Your task to perform on an android device: Clear all items from cart on ebay.com. Search for "macbook air" on ebay.com, select the first entry, add it to the cart, then select checkout. Image 0: 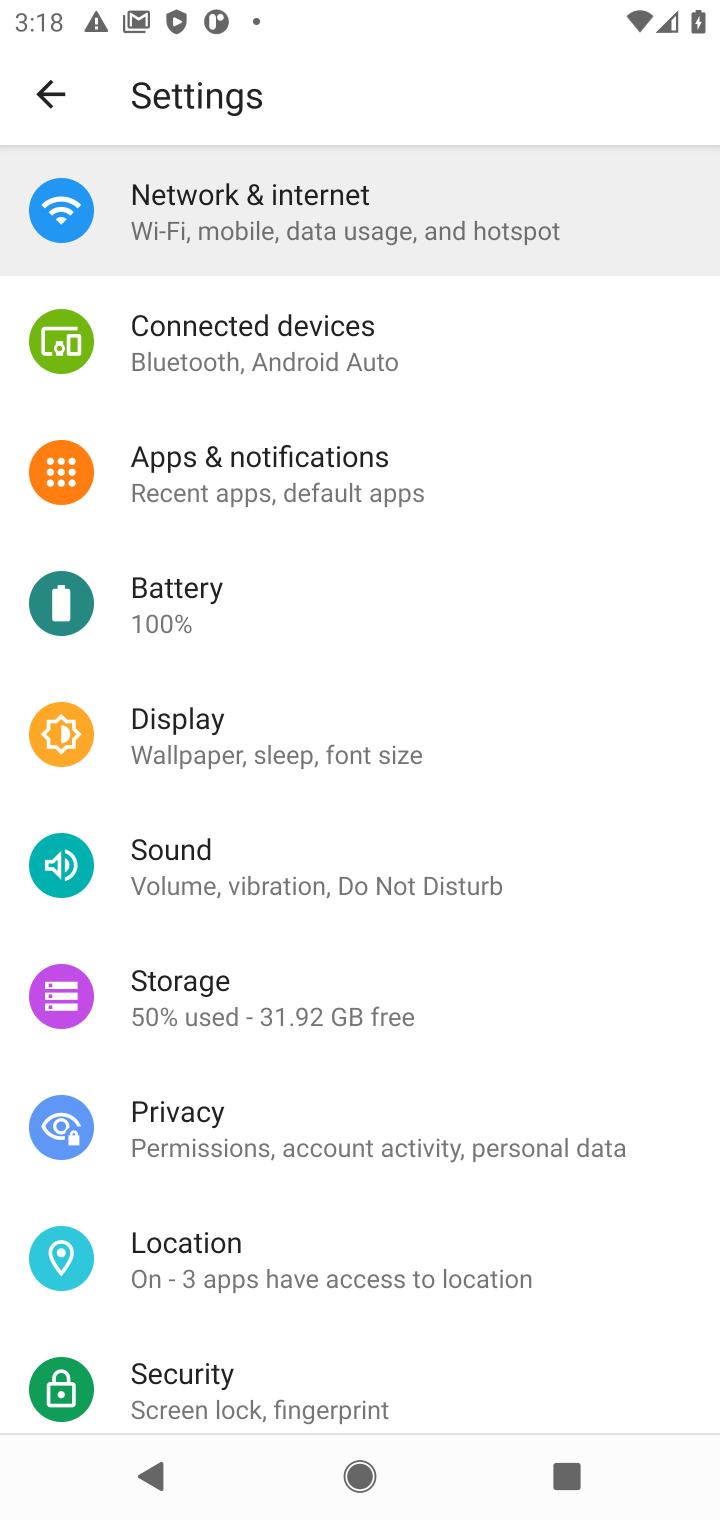
Step 0: press home button
Your task to perform on an android device: Clear all items from cart on ebay.com. Search for "macbook air" on ebay.com, select the first entry, add it to the cart, then select checkout. Image 1: 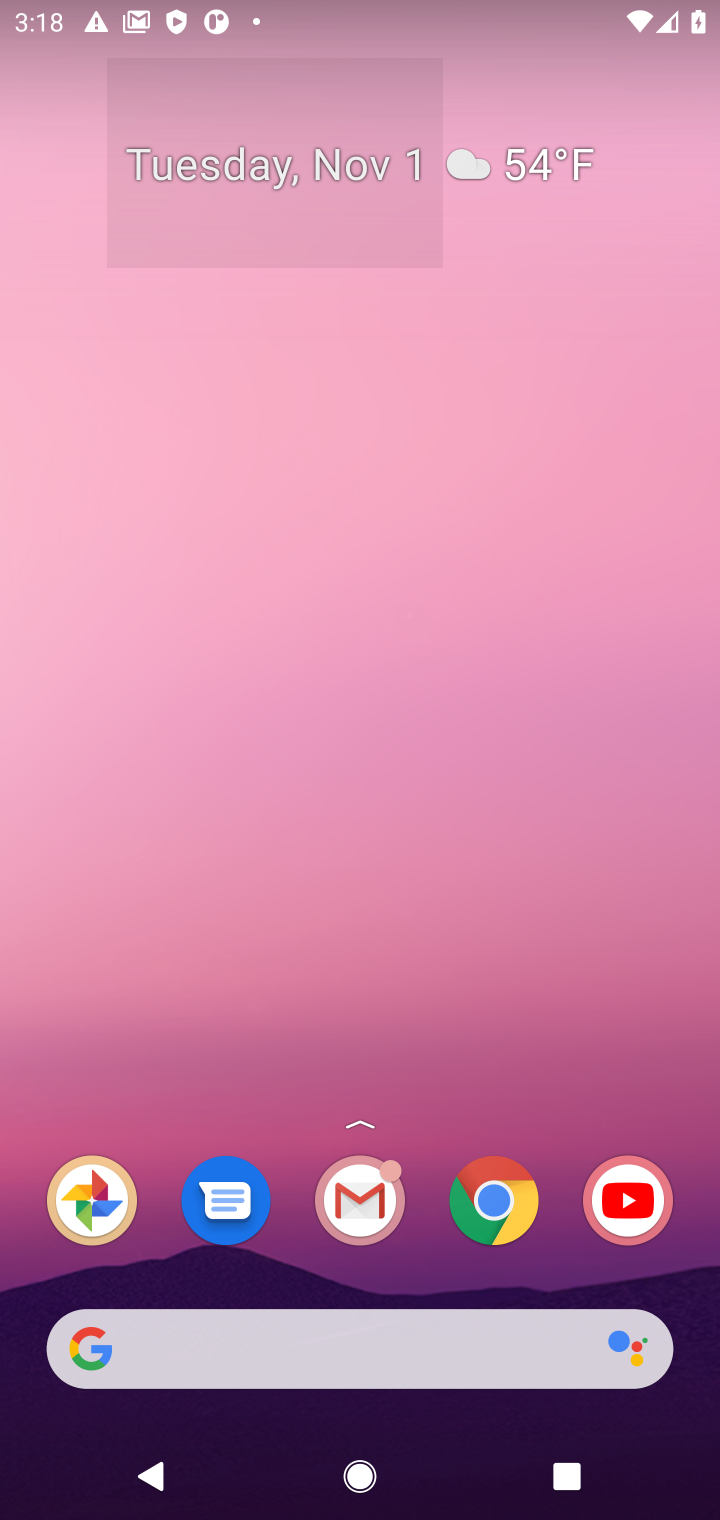
Step 1: click (88, 1359)
Your task to perform on an android device: Clear all items from cart on ebay.com. Search for "macbook air" on ebay.com, select the first entry, add it to the cart, then select checkout. Image 2: 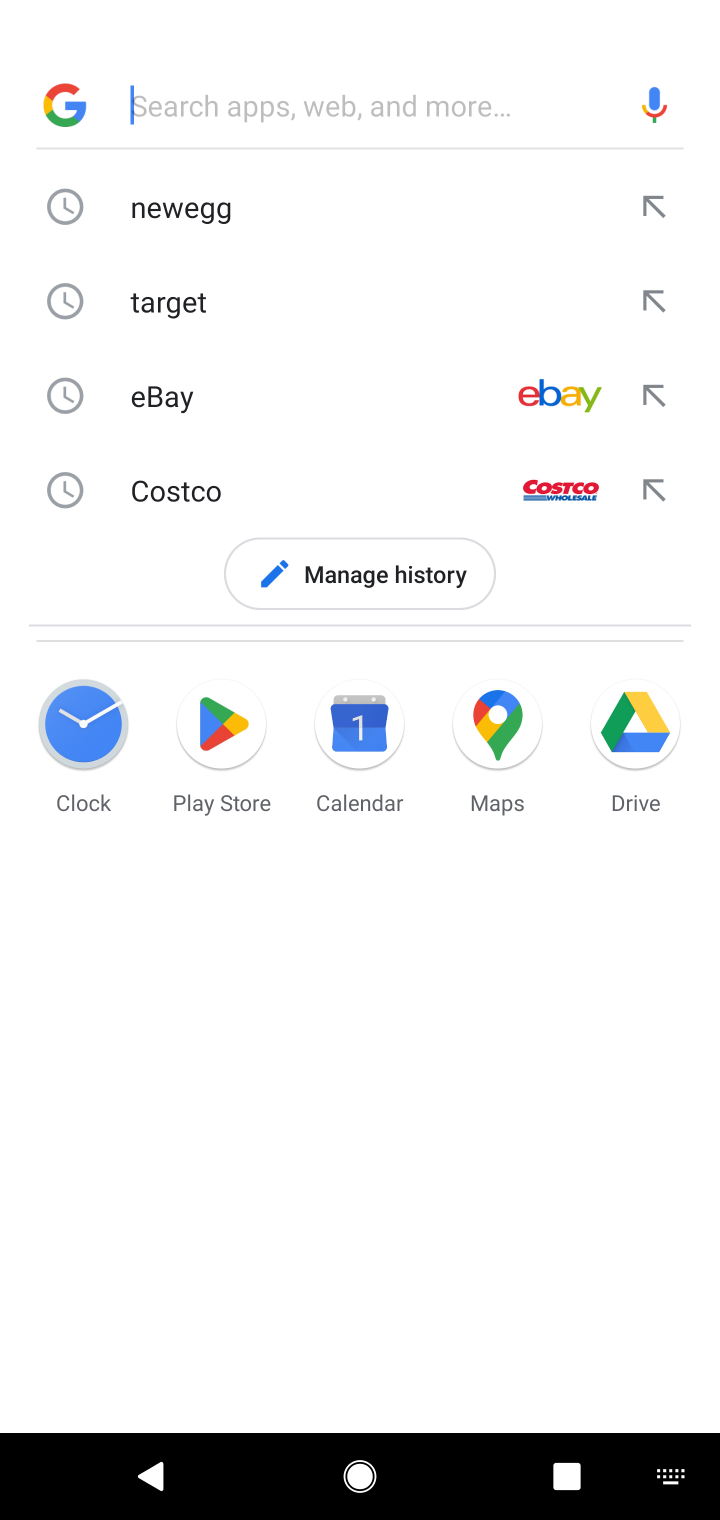
Step 2: click (309, 76)
Your task to perform on an android device: Clear all items from cart on ebay.com. Search for "macbook air" on ebay.com, select the first entry, add it to the cart, then select checkout. Image 3: 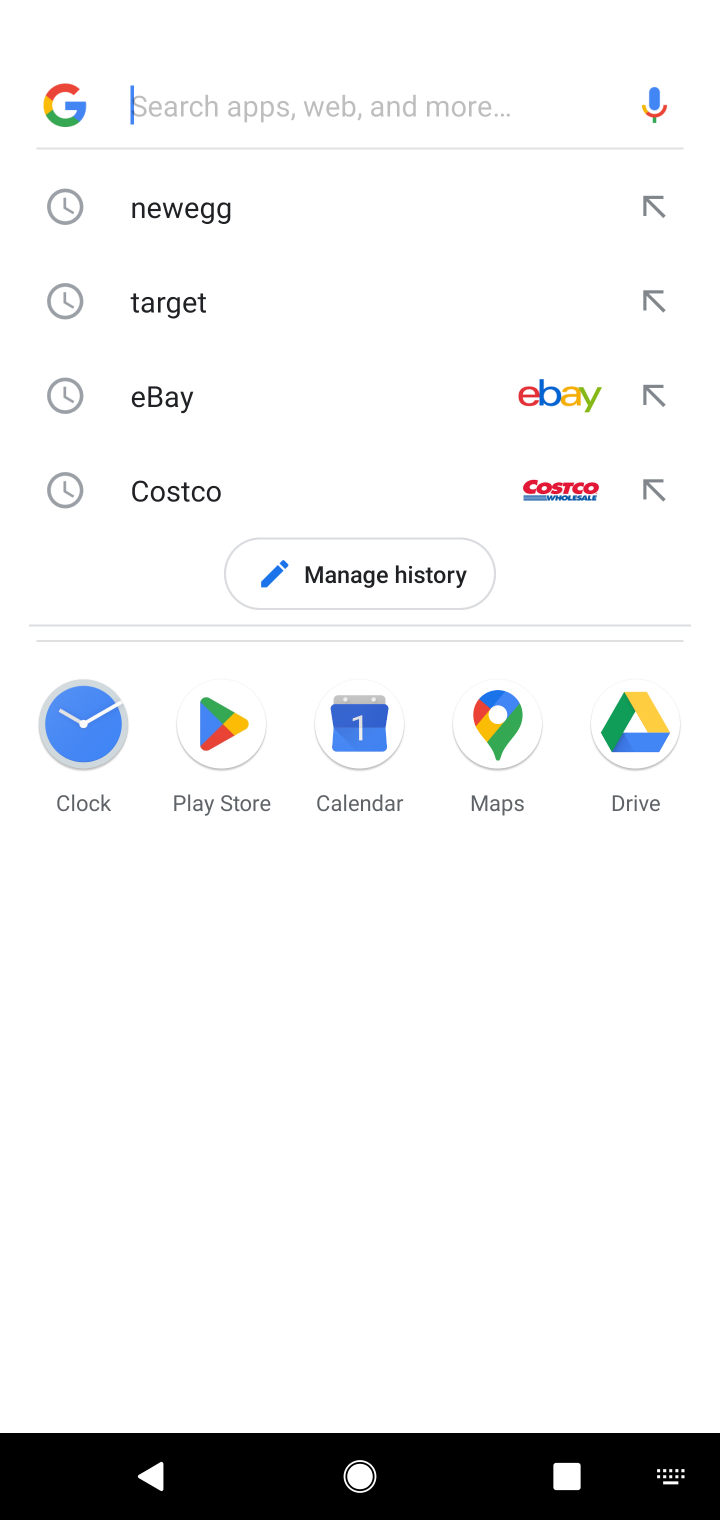
Step 3: click (247, 402)
Your task to perform on an android device: Clear all items from cart on ebay.com. Search for "macbook air" on ebay.com, select the first entry, add it to the cart, then select checkout. Image 4: 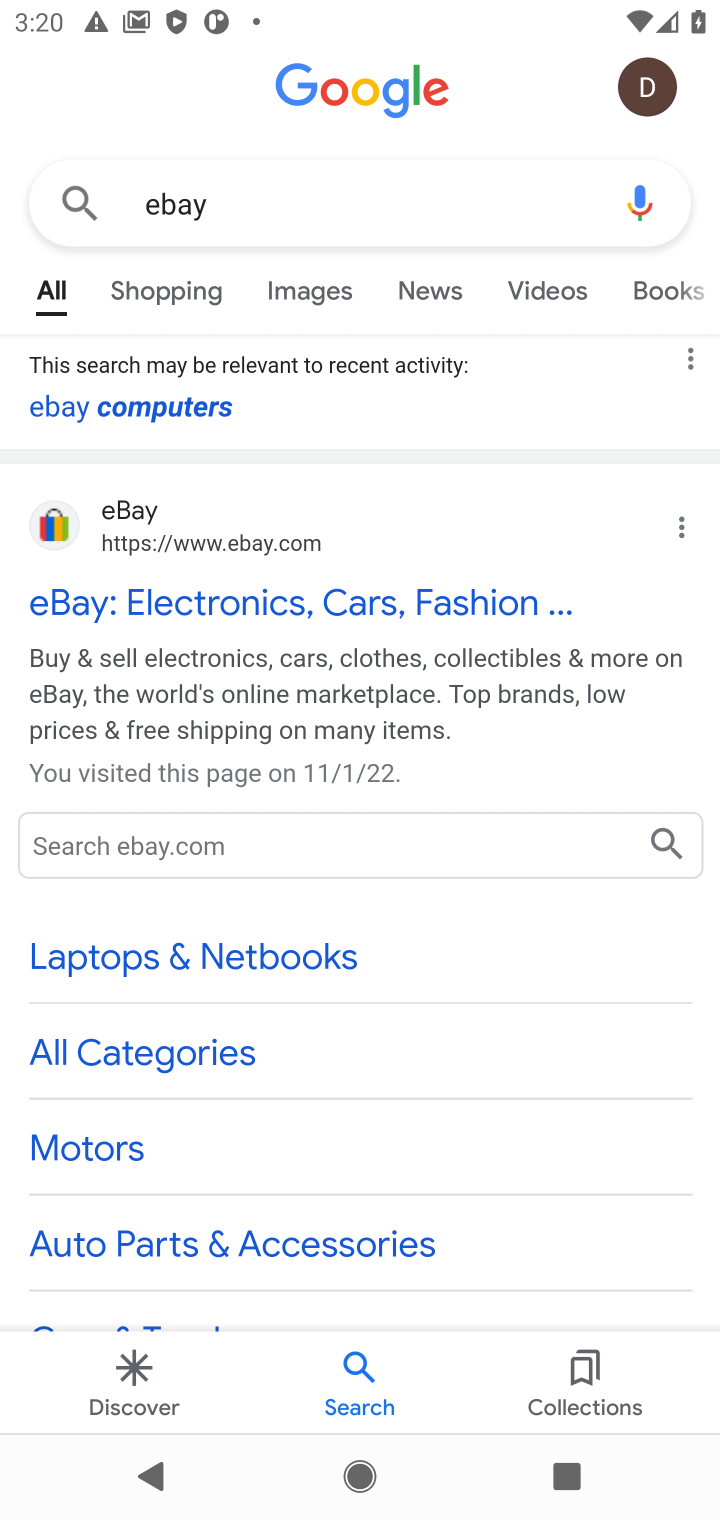
Step 4: click (182, 605)
Your task to perform on an android device: Clear all items from cart on ebay.com. Search for "macbook air" on ebay.com, select the first entry, add it to the cart, then select checkout. Image 5: 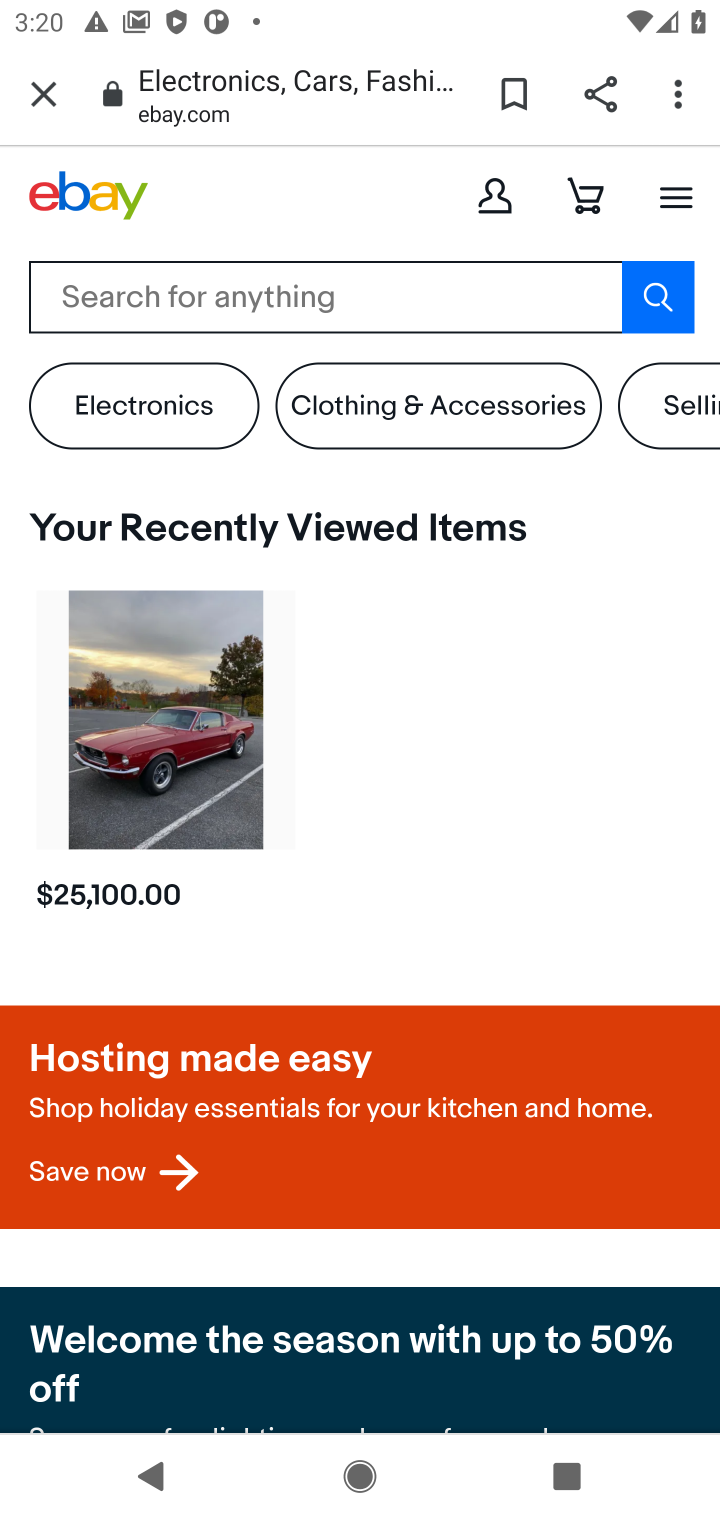
Step 5: click (434, 308)
Your task to perform on an android device: Clear all items from cart on ebay.com. Search for "macbook air" on ebay.com, select the first entry, add it to the cart, then select checkout. Image 6: 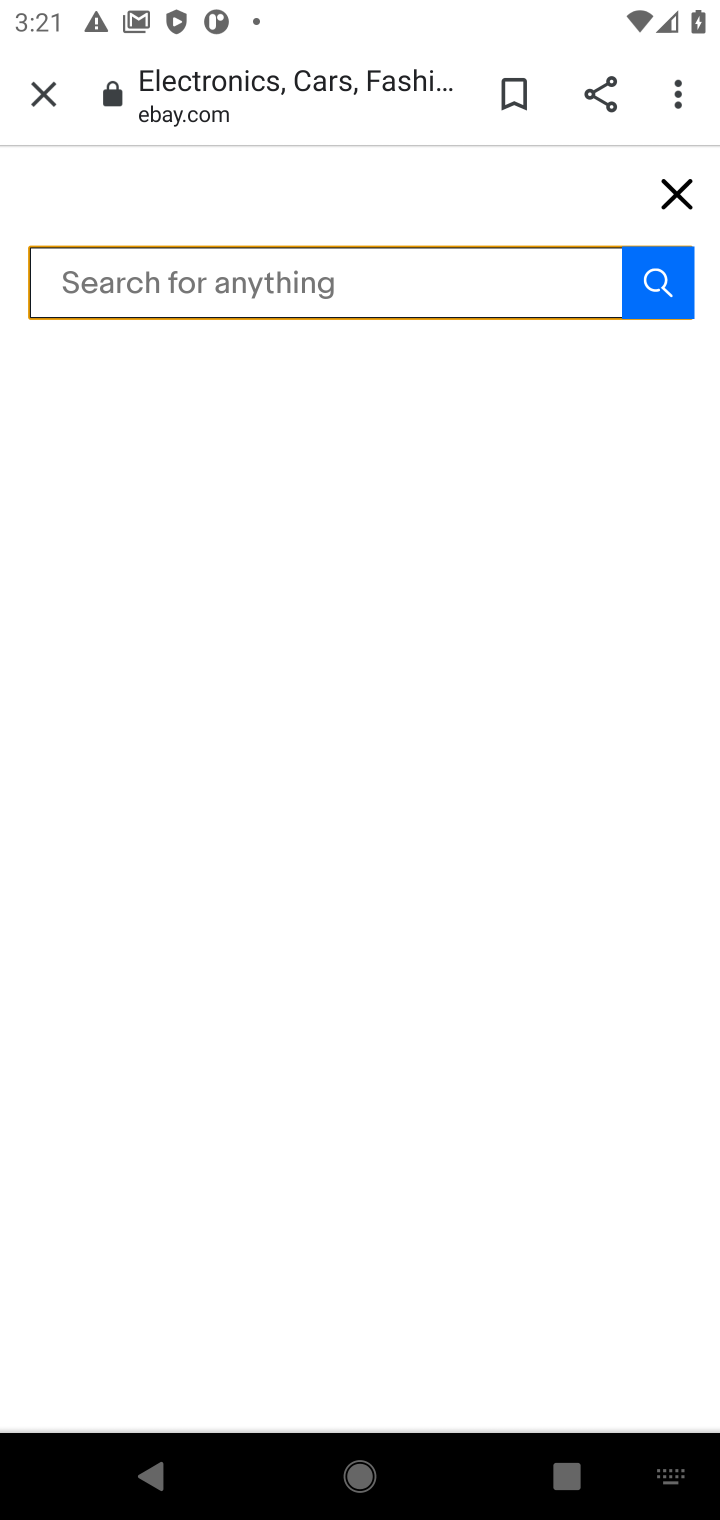
Step 6: click (676, 194)
Your task to perform on an android device: Clear all items from cart on ebay.com. Search for "macbook air" on ebay.com, select the first entry, add it to the cart, then select checkout. Image 7: 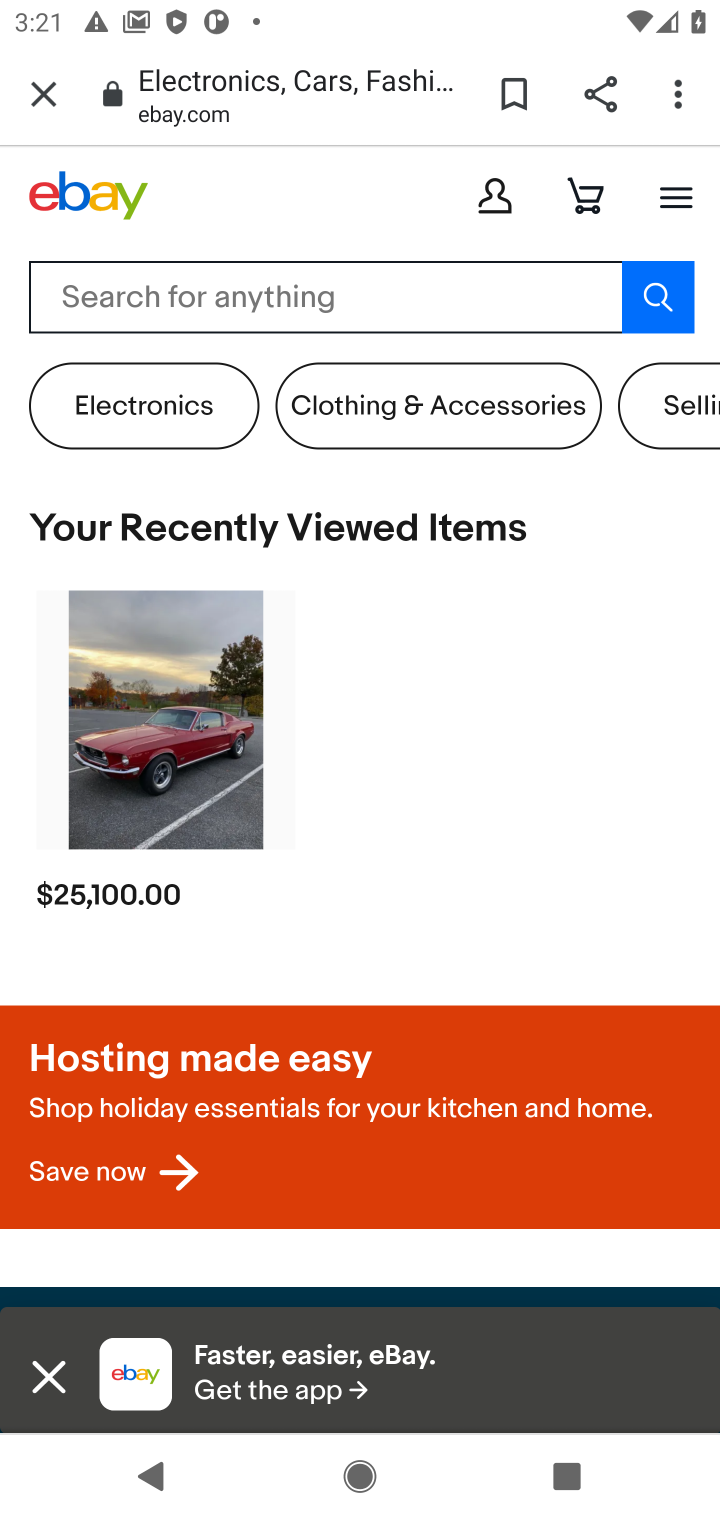
Step 7: click (302, 284)
Your task to perform on an android device: Clear all items from cart on ebay.com. Search for "macbook air" on ebay.com, select the first entry, add it to the cart, then select checkout. Image 8: 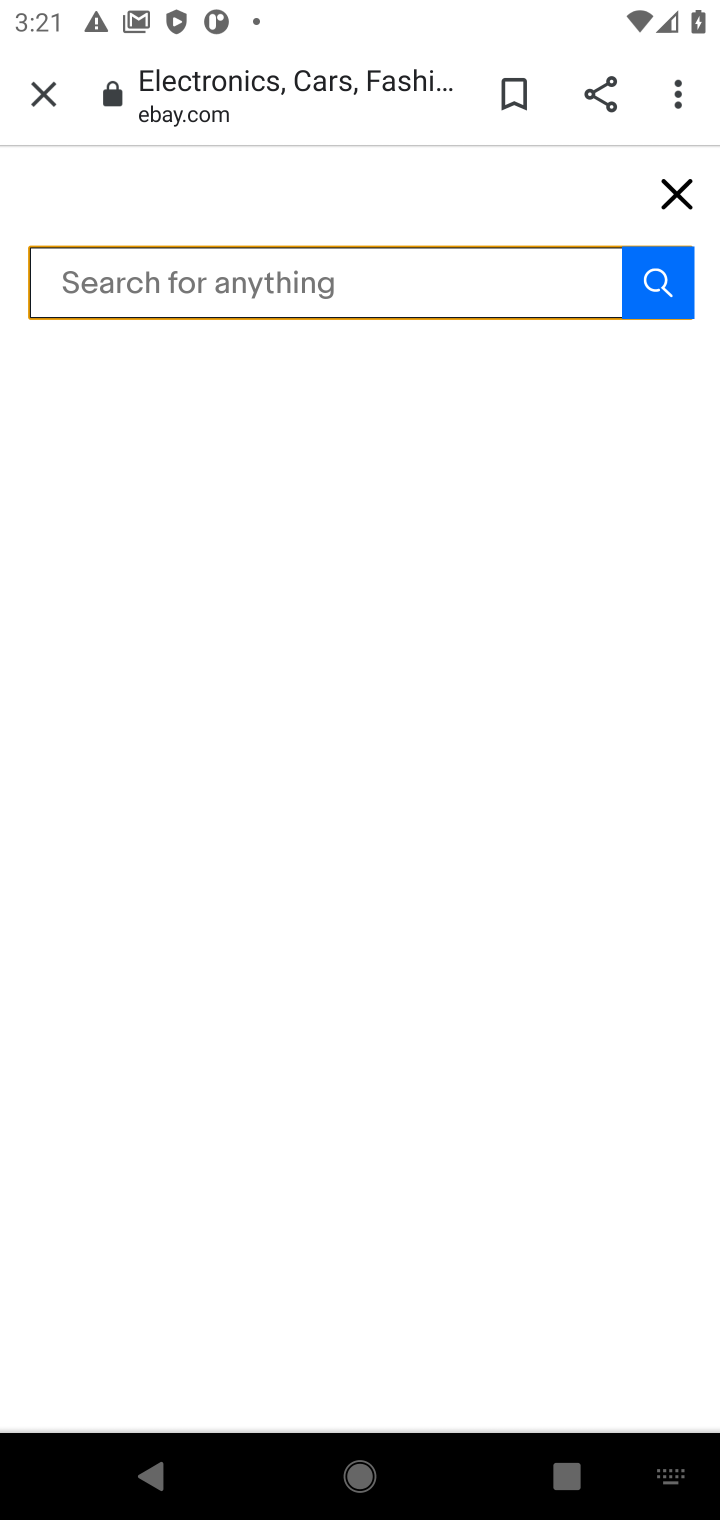
Step 8: type "macbook air"
Your task to perform on an android device: Clear all items from cart on ebay.com. Search for "macbook air" on ebay.com, select the first entry, add it to the cart, then select checkout. Image 9: 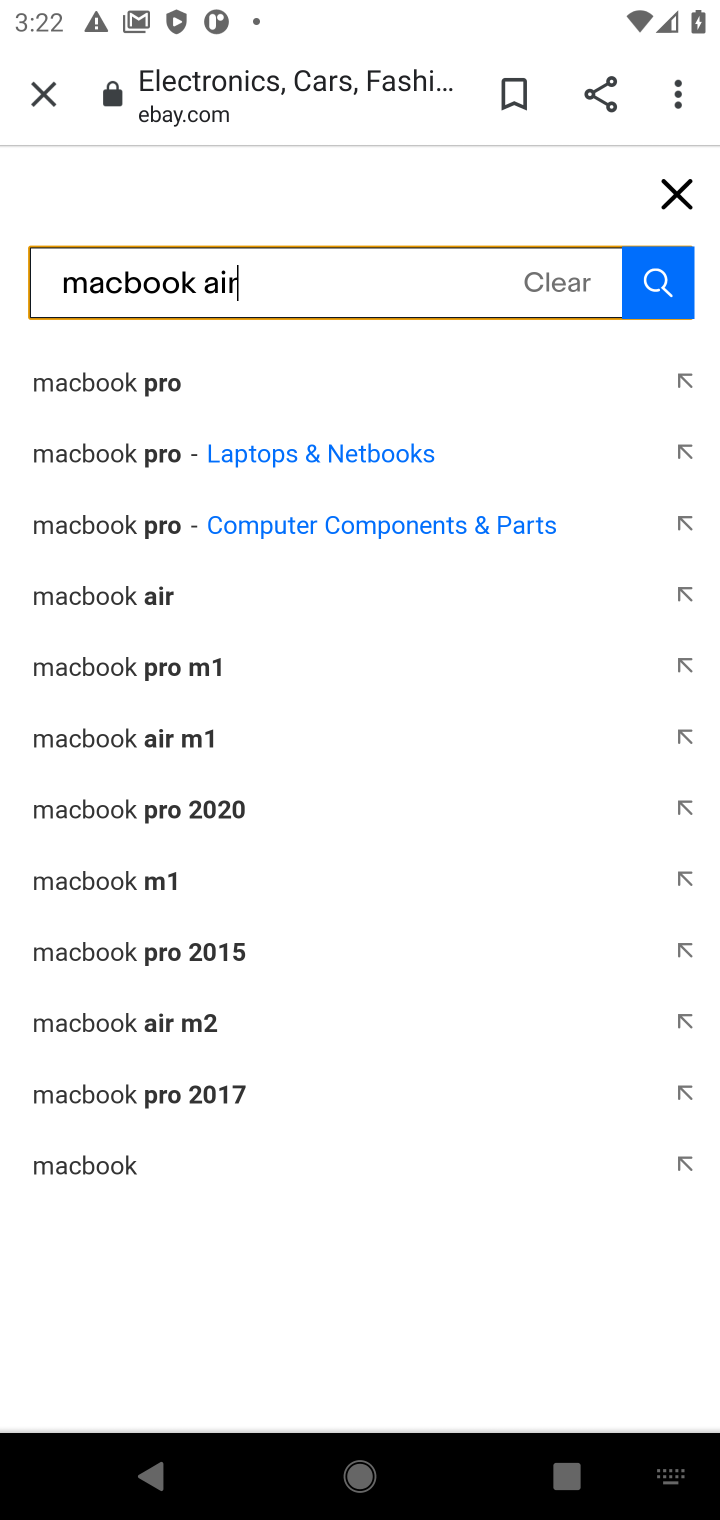
Step 9: click (163, 389)
Your task to perform on an android device: Clear all items from cart on ebay.com. Search for "macbook air" on ebay.com, select the first entry, add it to the cart, then select checkout. Image 10: 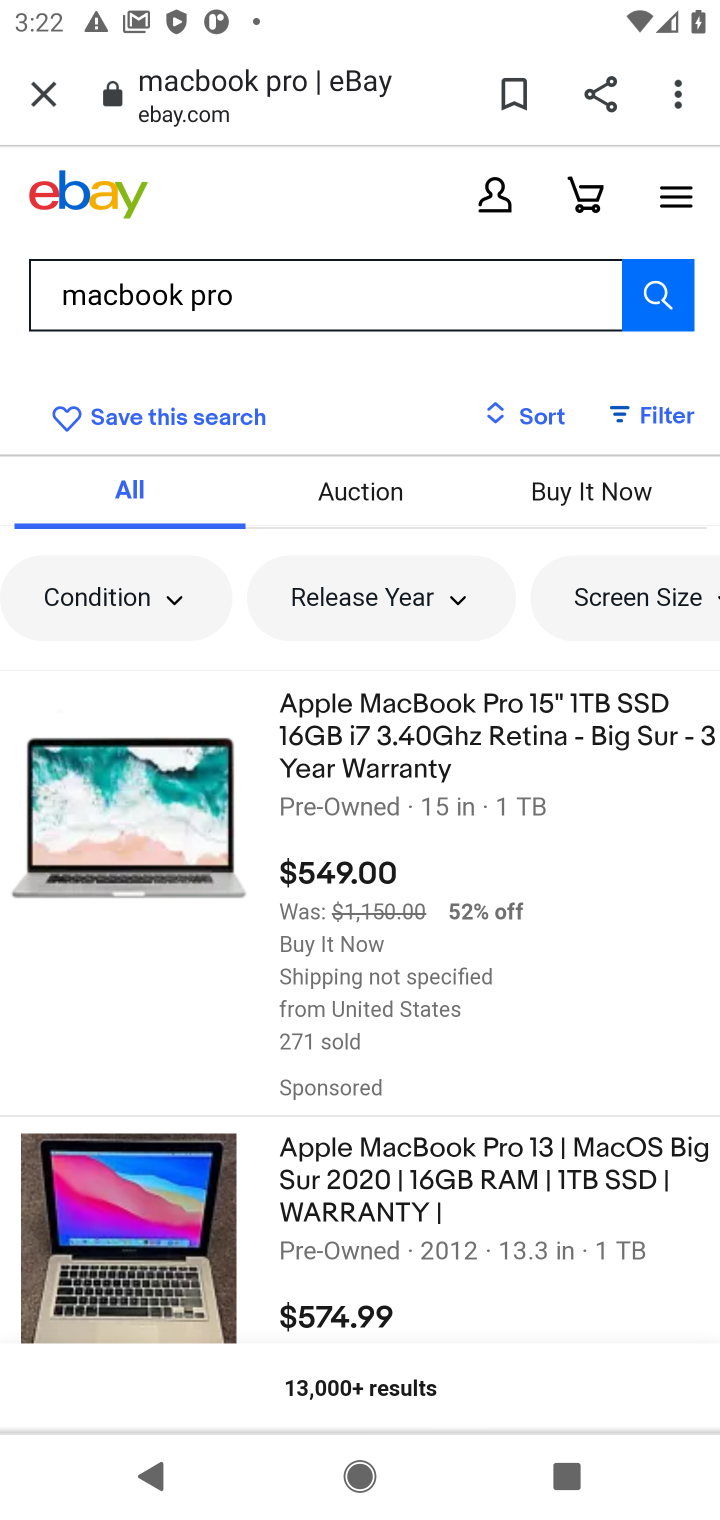
Step 10: click (171, 815)
Your task to perform on an android device: Clear all items from cart on ebay.com. Search for "macbook air" on ebay.com, select the first entry, add it to the cart, then select checkout. Image 11: 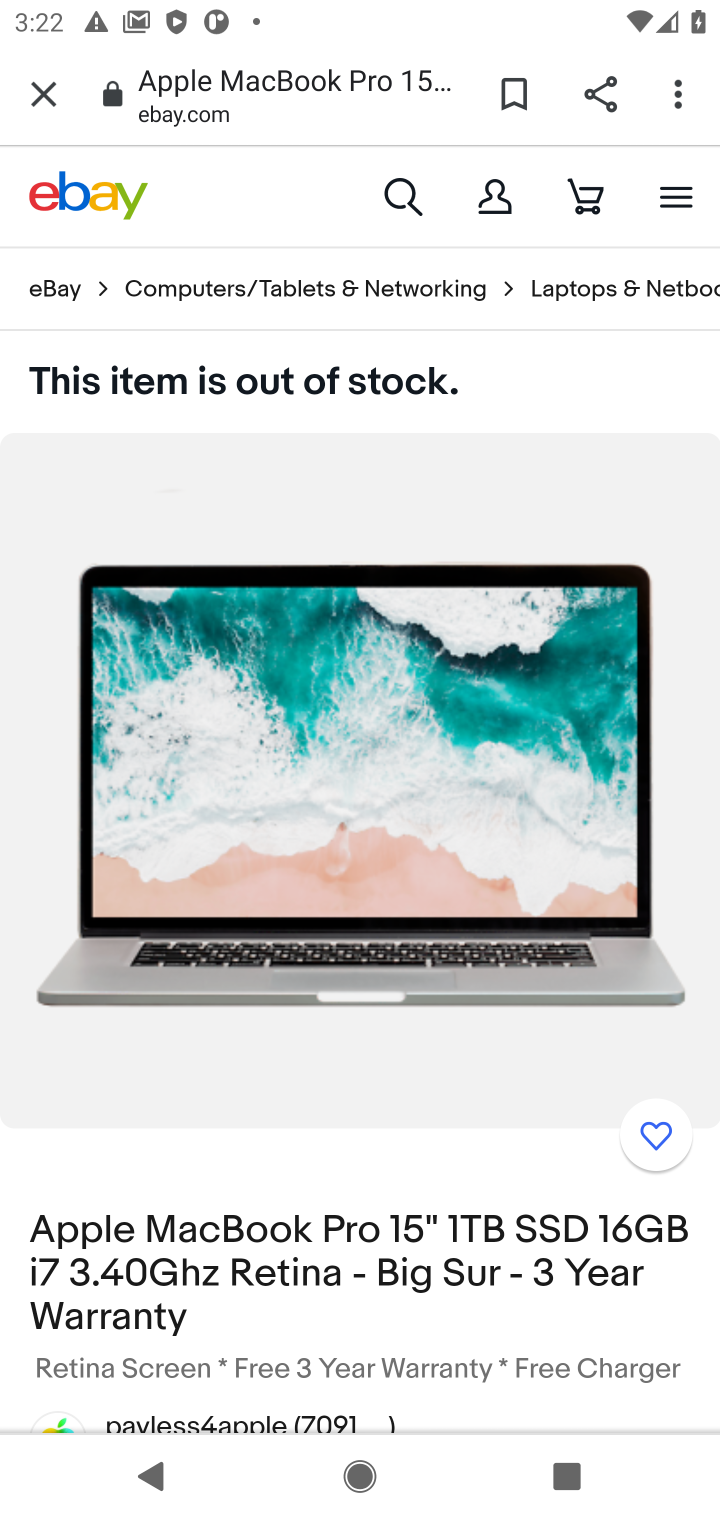
Step 11: drag from (446, 1233) to (389, 595)
Your task to perform on an android device: Clear all items from cart on ebay.com. Search for "macbook air" on ebay.com, select the first entry, add it to the cart, then select checkout. Image 12: 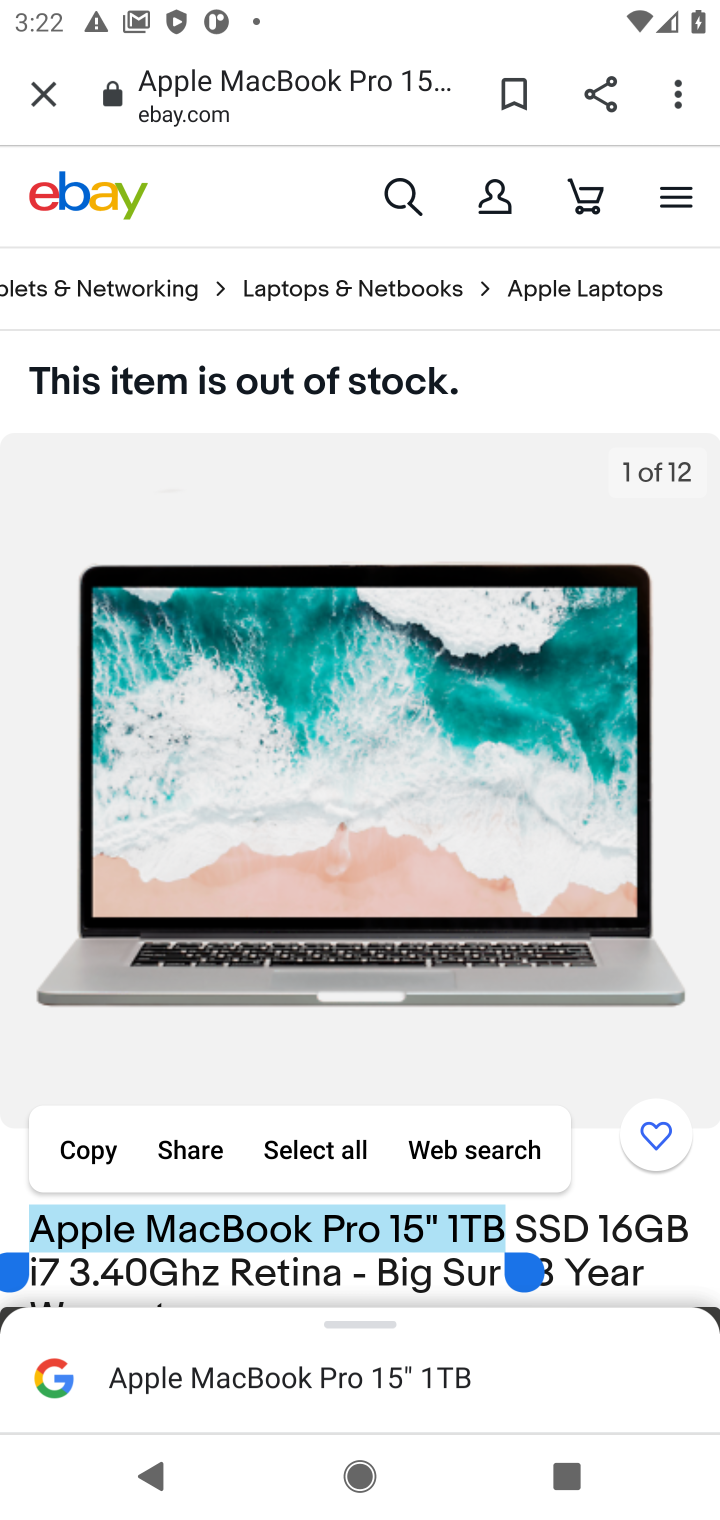
Step 12: click (693, 1203)
Your task to perform on an android device: Clear all items from cart on ebay.com. Search for "macbook air" on ebay.com, select the first entry, add it to the cart, then select checkout. Image 13: 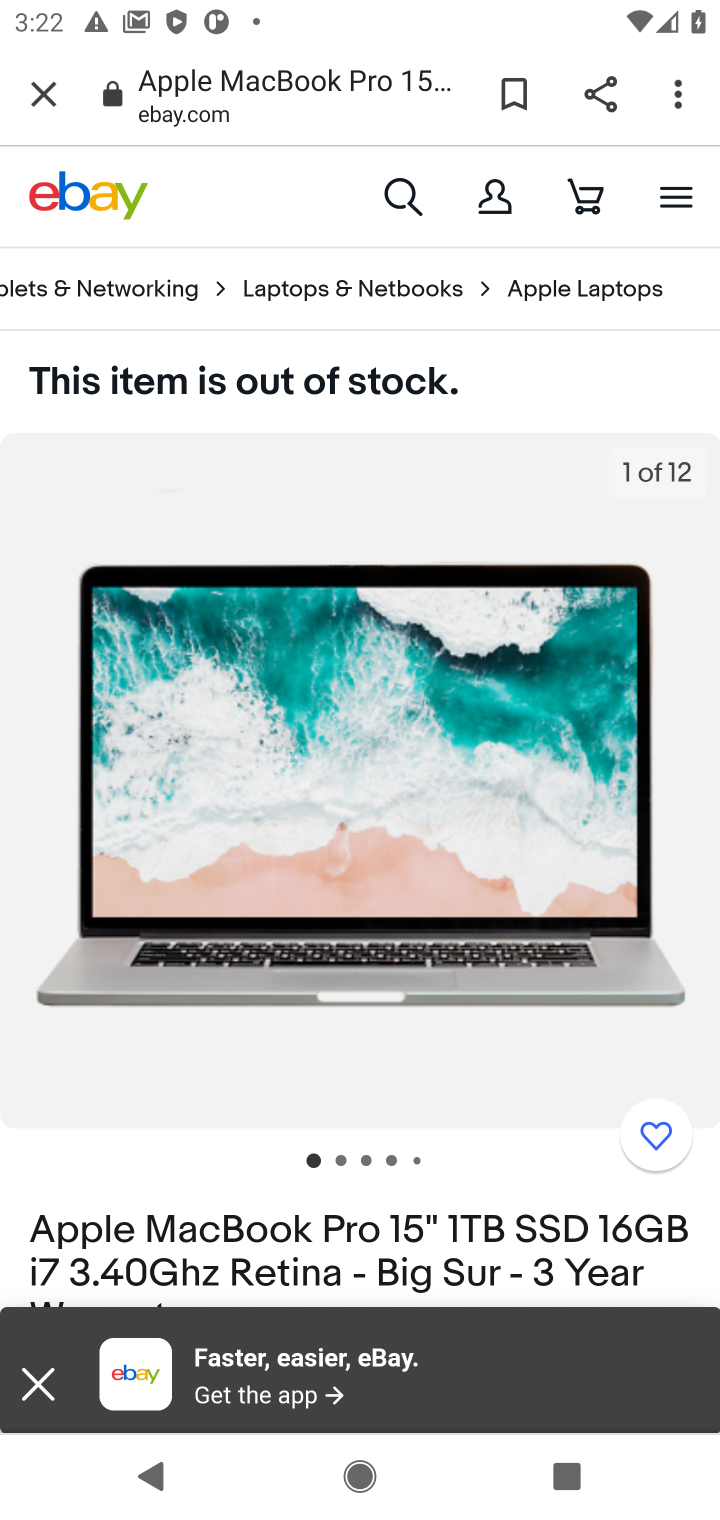
Step 13: drag from (510, 1176) to (516, 455)
Your task to perform on an android device: Clear all items from cart on ebay.com. Search for "macbook air" on ebay.com, select the first entry, add it to the cart, then select checkout. Image 14: 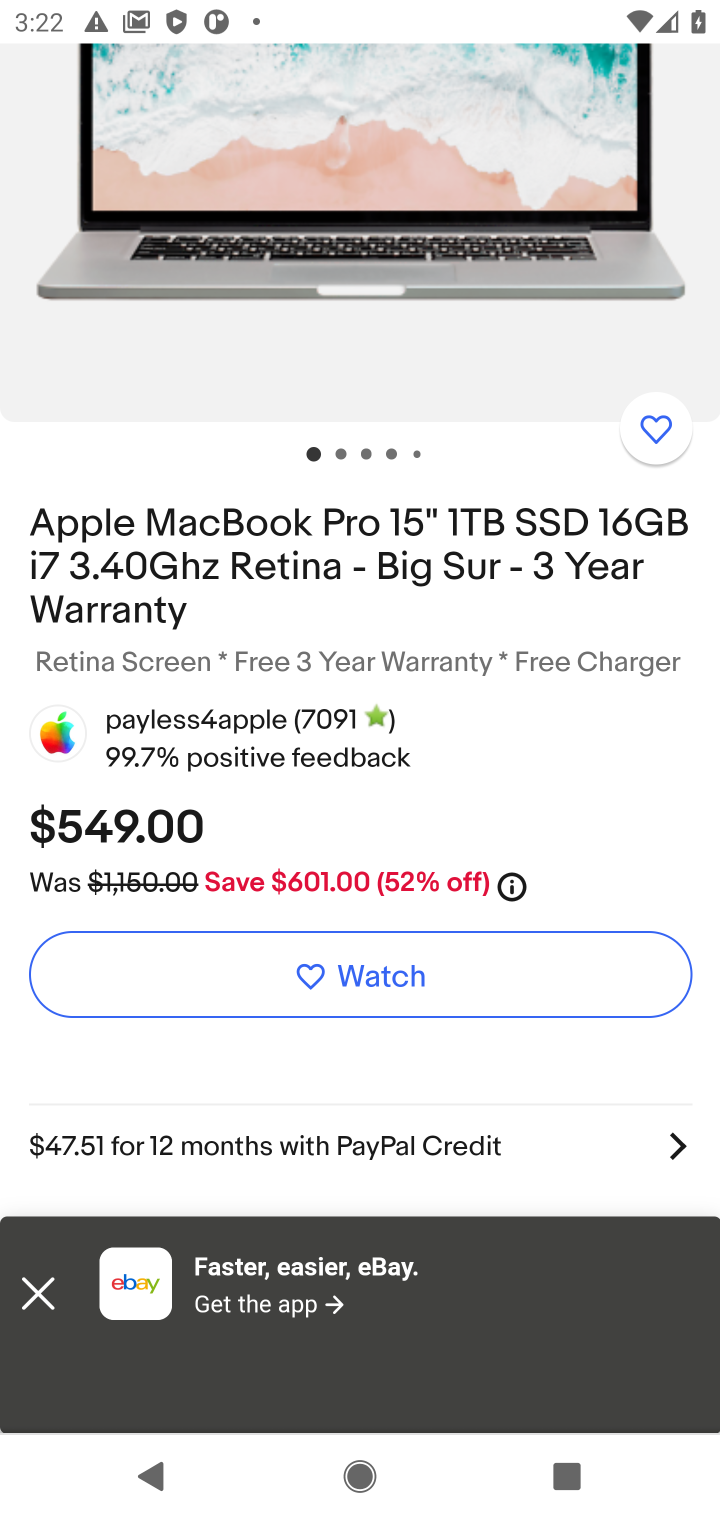
Step 14: drag from (656, 755) to (534, 166)
Your task to perform on an android device: Clear all items from cart on ebay.com. Search for "macbook air" on ebay.com, select the first entry, add it to the cart, then select checkout. Image 15: 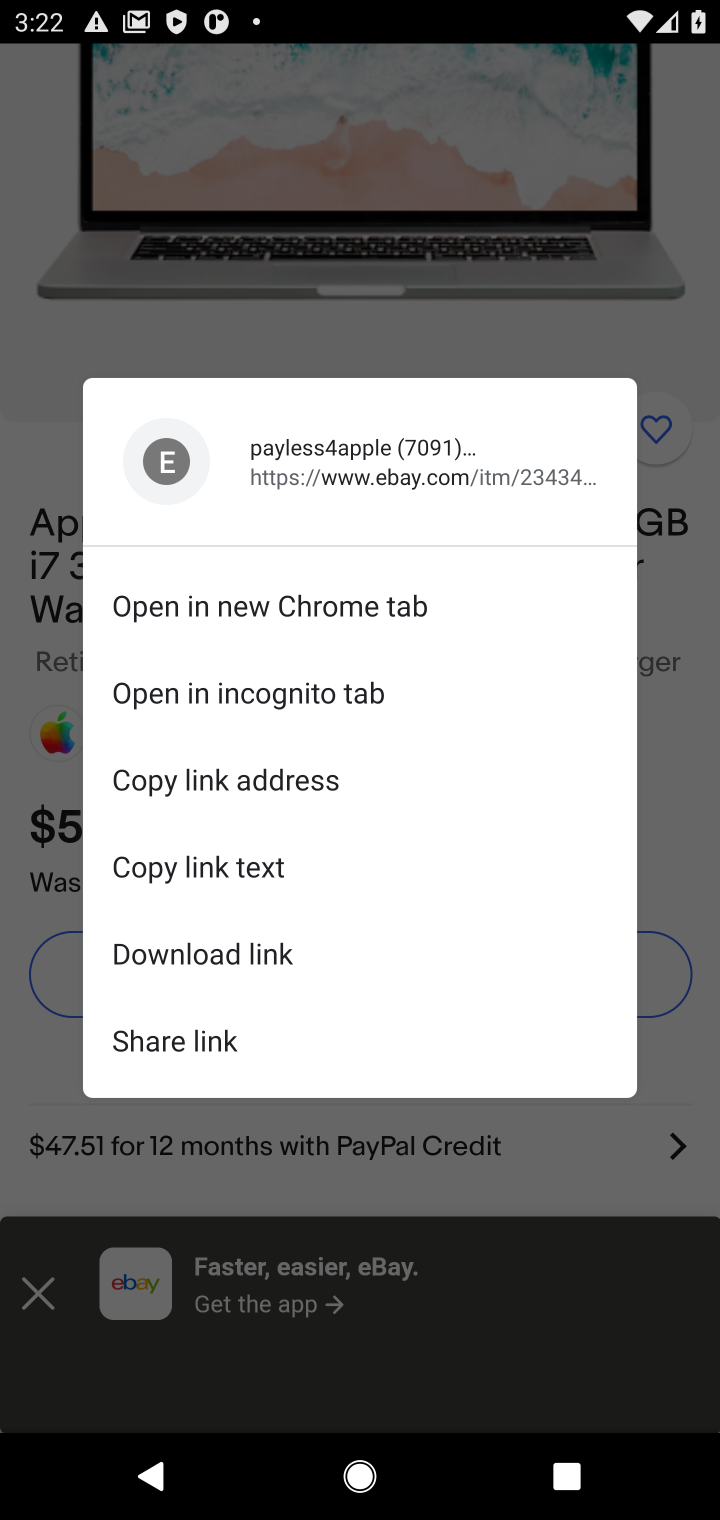
Step 15: click (671, 327)
Your task to perform on an android device: Clear all items from cart on ebay.com. Search for "macbook air" on ebay.com, select the first entry, add it to the cart, then select checkout. Image 16: 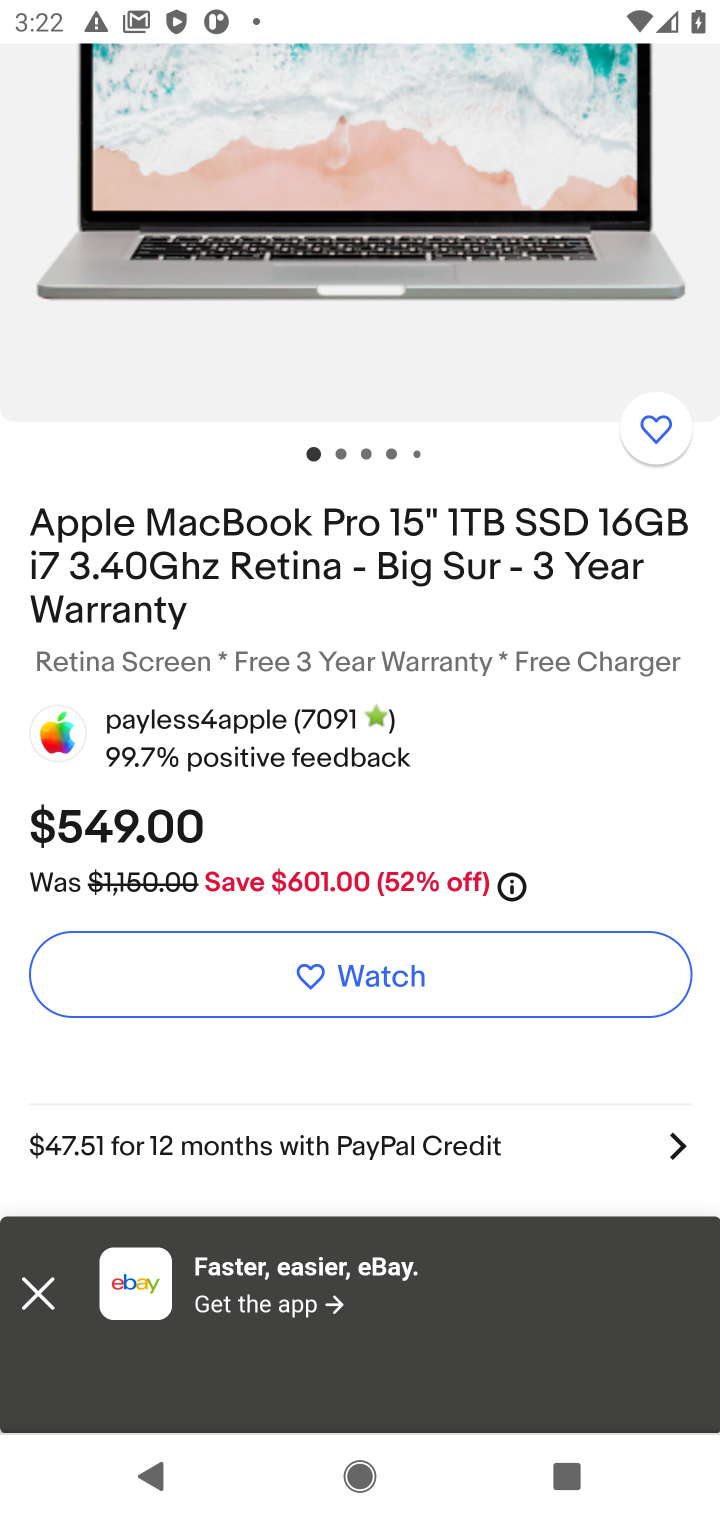
Step 16: drag from (592, 947) to (527, 166)
Your task to perform on an android device: Clear all items from cart on ebay.com. Search for "macbook air" on ebay.com, select the first entry, add it to the cart, then select checkout. Image 17: 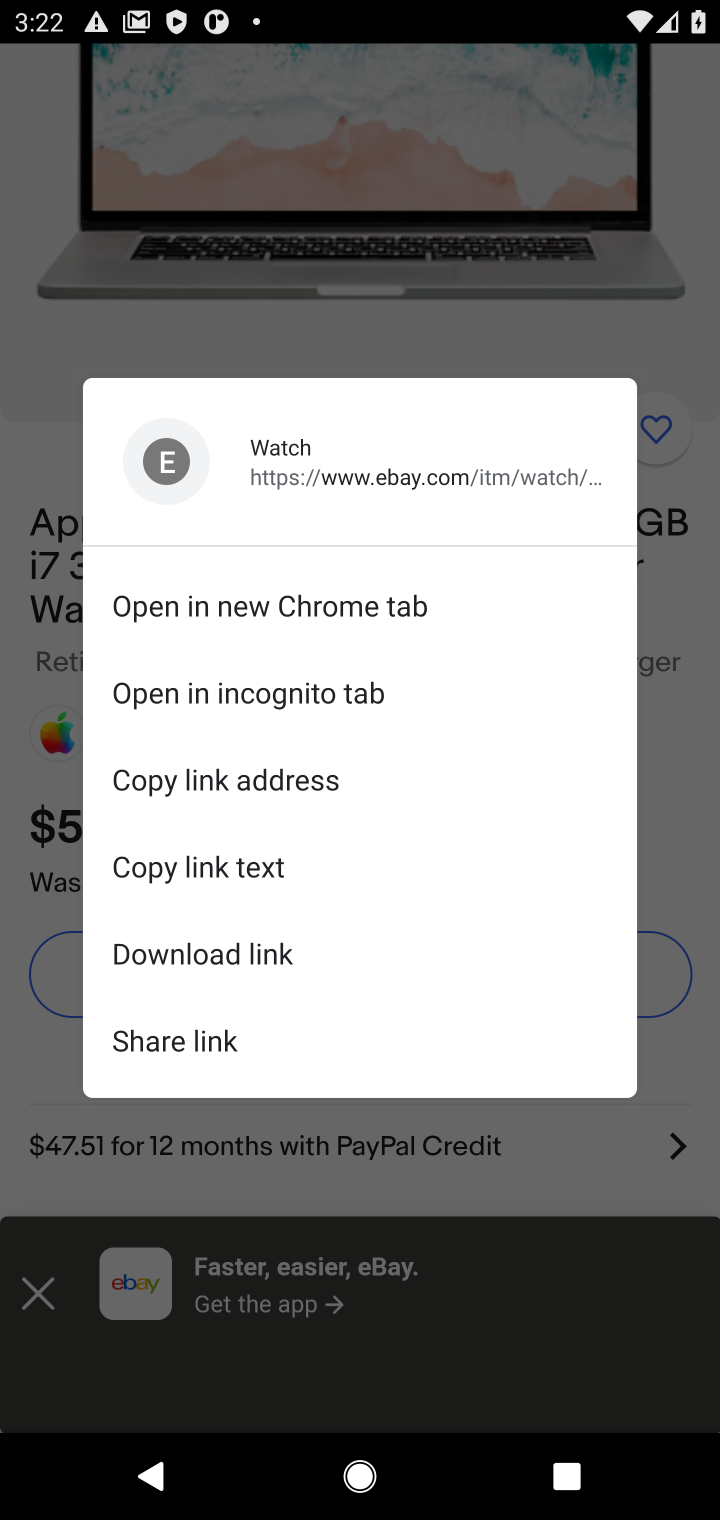
Step 17: click (671, 311)
Your task to perform on an android device: Clear all items from cart on ebay.com. Search for "macbook air" on ebay.com, select the first entry, add it to the cart, then select checkout. Image 18: 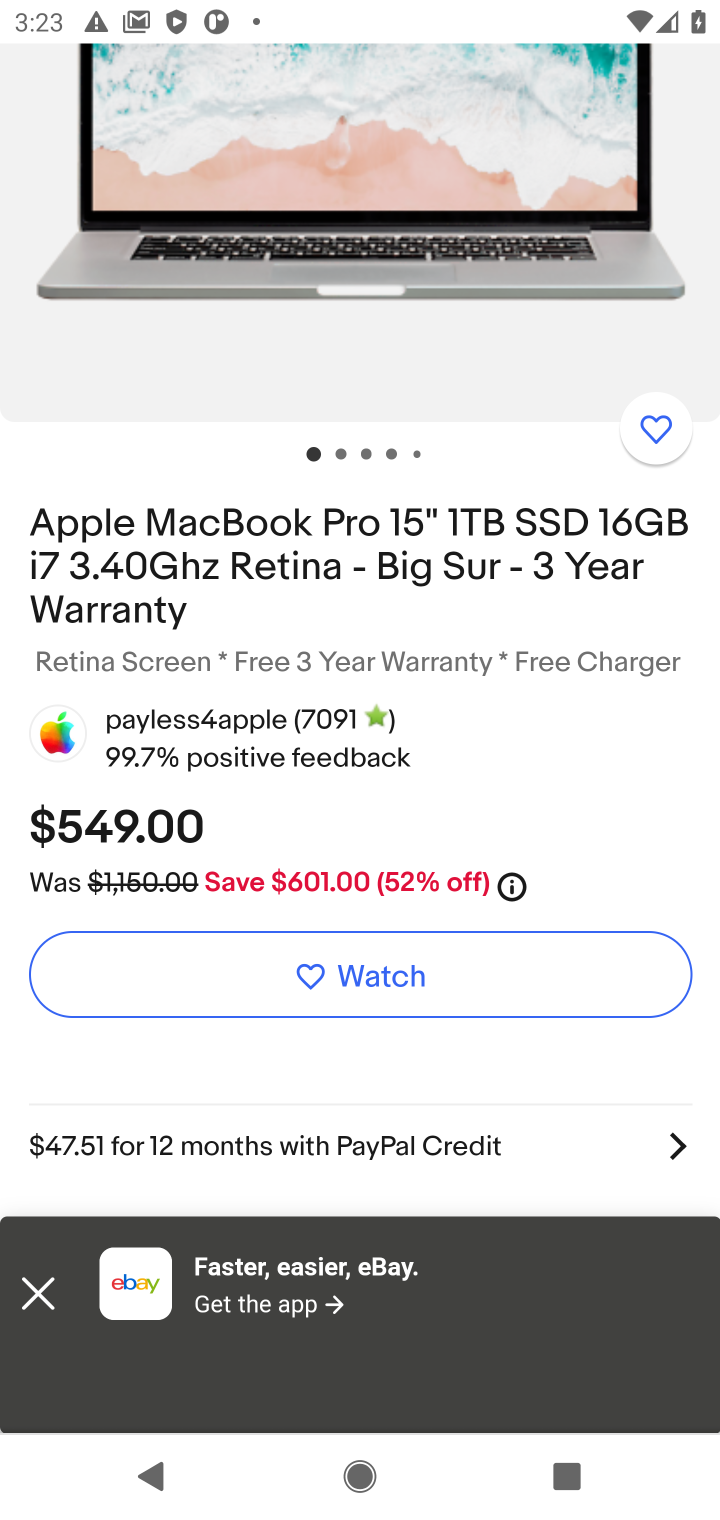
Step 18: click (45, 1292)
Your task to perform on an android device: Clear all items from cart on ebay.com. Search for "macbook air" on ebay.com, select the first entry, add it to the cart, then select checkout. Image 19: 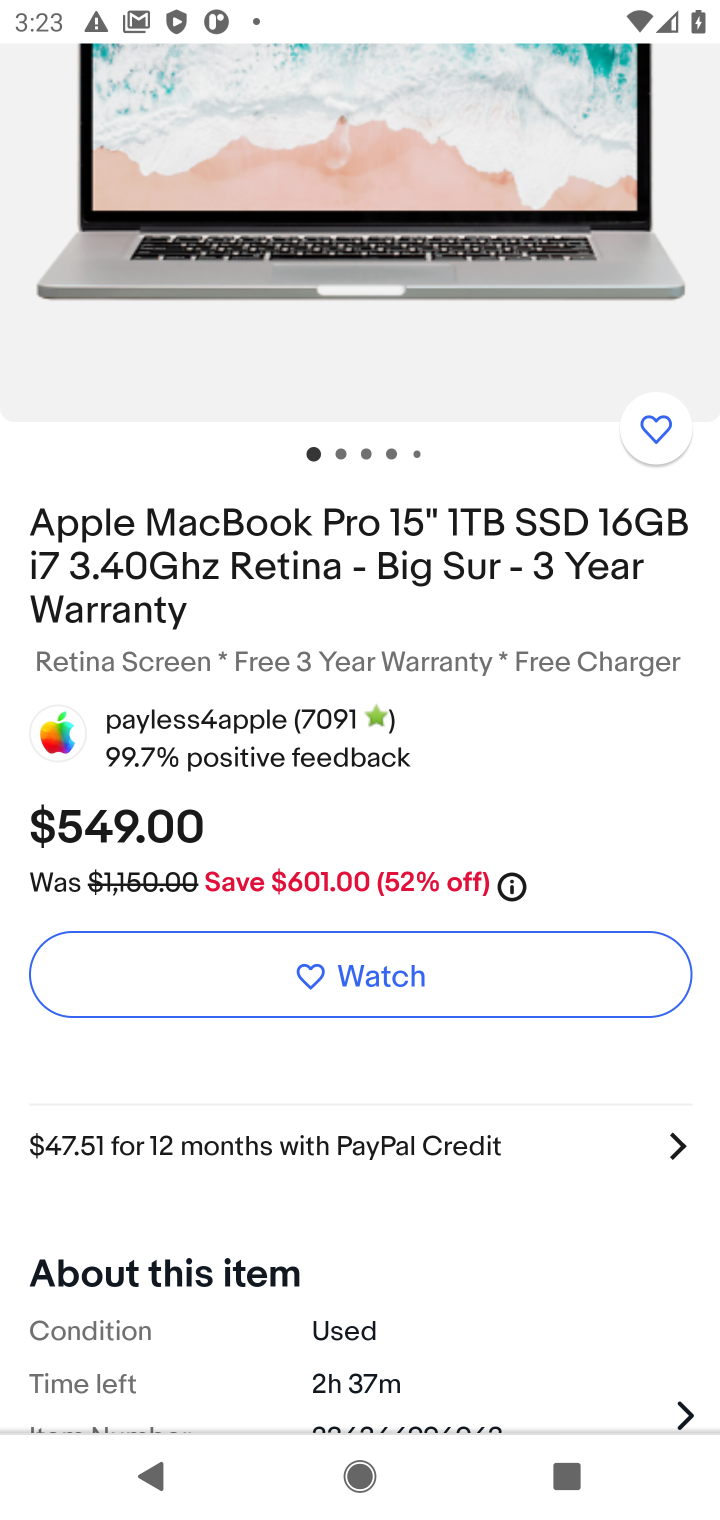
Step 19: task complete